Your task to perform on an android device: Open Google Maps Image 0: 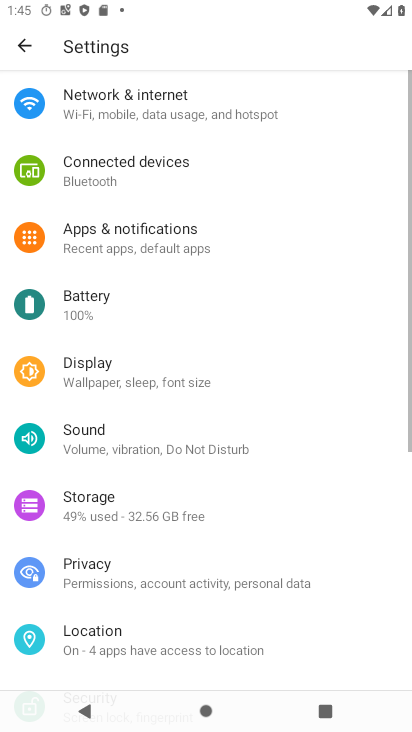
Step 0: press home button
Your task to perform on an android device: Open Google Maps Image 1: 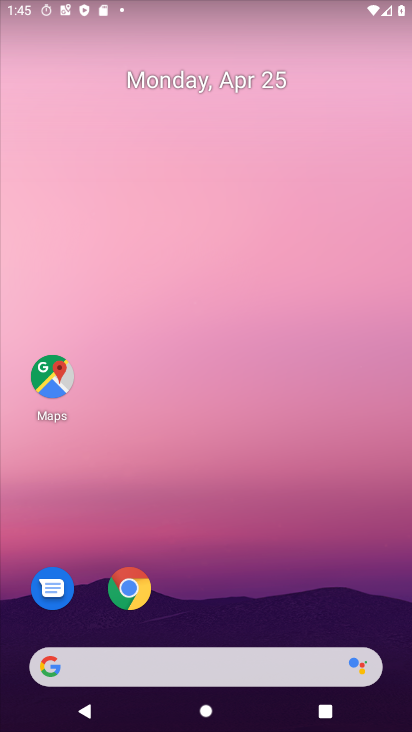
Step 1: click (64, 386)
Your task to perform on an android device: Open Google Maps Image 2: 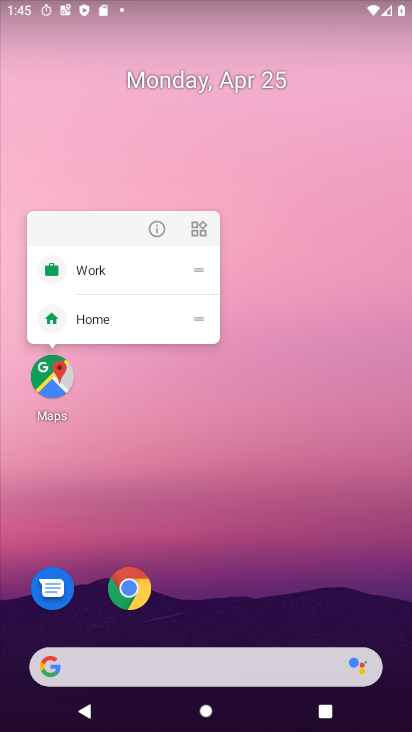
Step 2: click (162, 233)
Your task to perform on an android device: Open Google Maps Image 3: 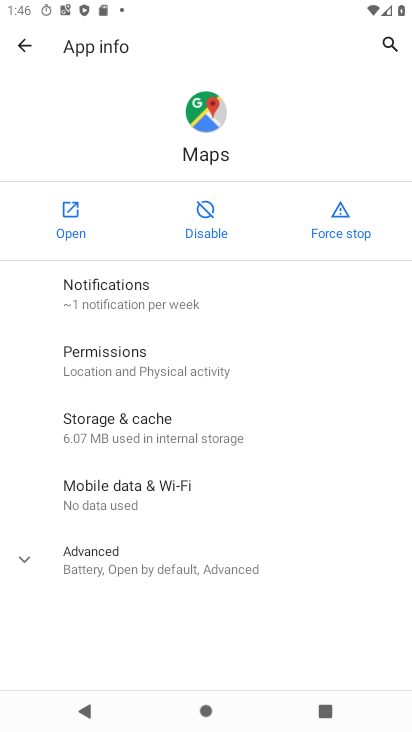
Step 3: click (78, 229)
Your task to perform on an android device: Open Google Maps Image 4: 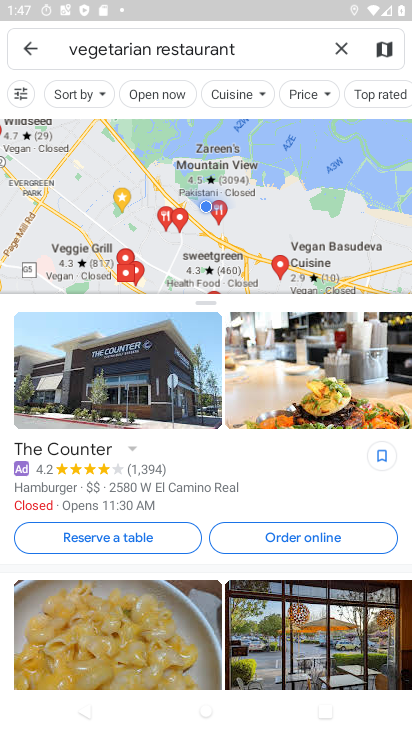
Step 4: task complete